Your task to perform on an android device: Open CNN.com Image 0: 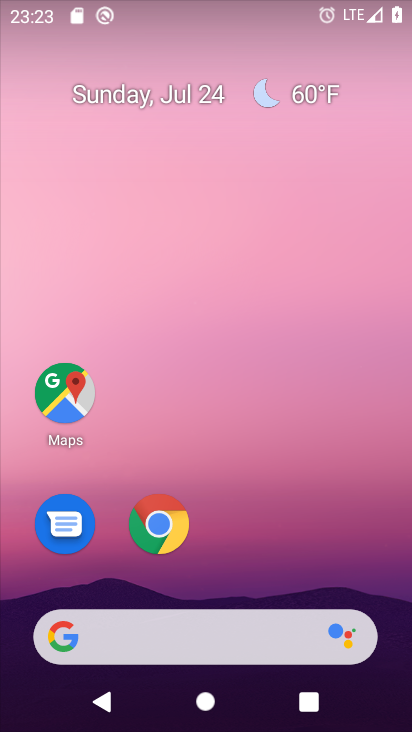
Step 0: click (207, 634)
Your task to perform on an android device: Open CNN.com Image 1: 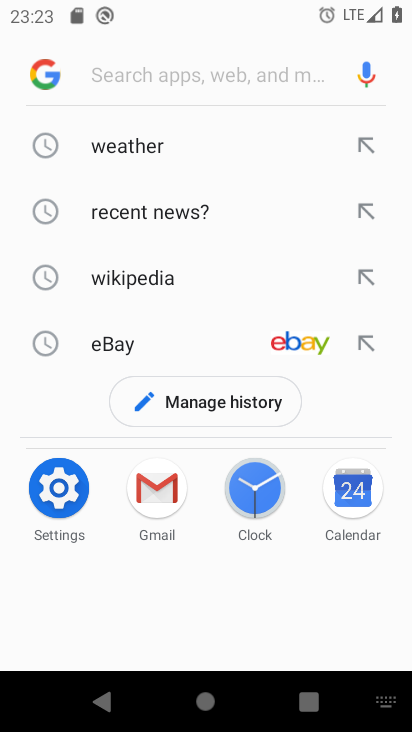
Step 1: type "cnn.com"
Your task to perform on an android device: Open CNN.com Image 2: 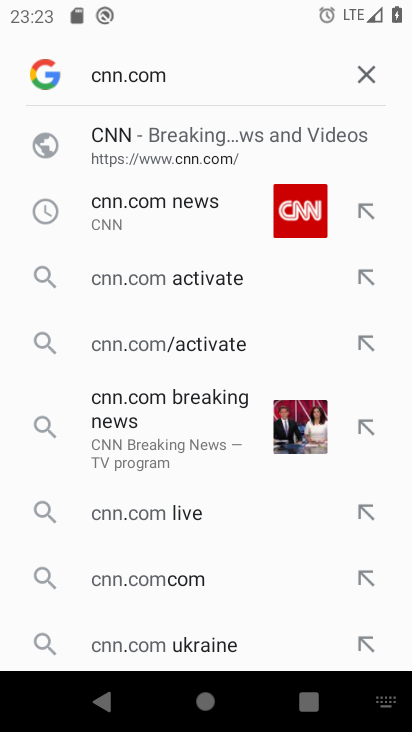
Step 2: click (186, 205)
Your task to perform on an android device: Open CNN.com Image 3: 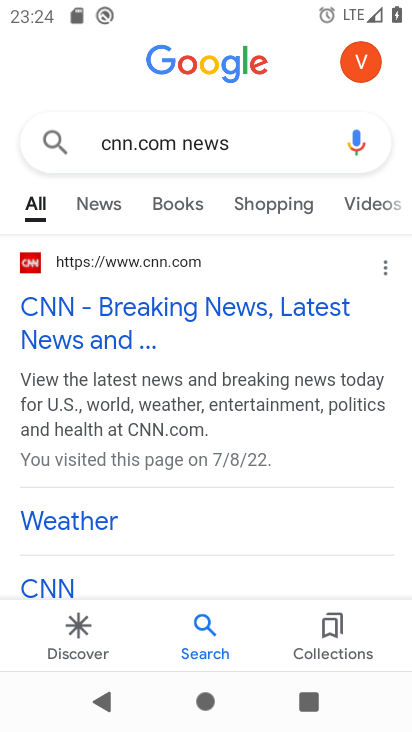
Step 3: click (137, 301)
Your task to perform on an android device: Open CNN.com Image 4: 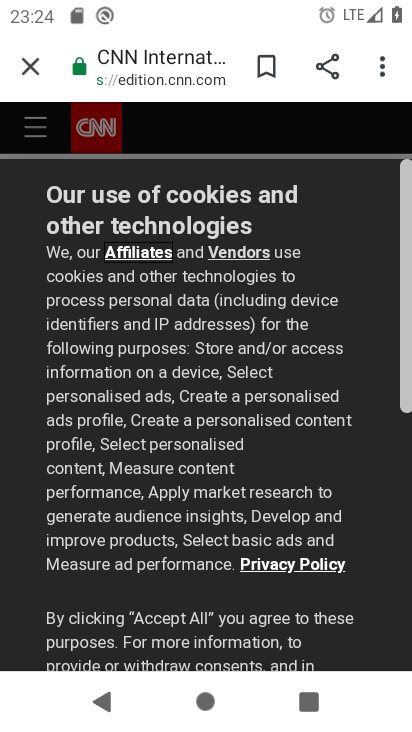
Step 4: drag from (235, 467) to (288, 71)
Your task to perform on an android device: Open CNN.com Image 5: 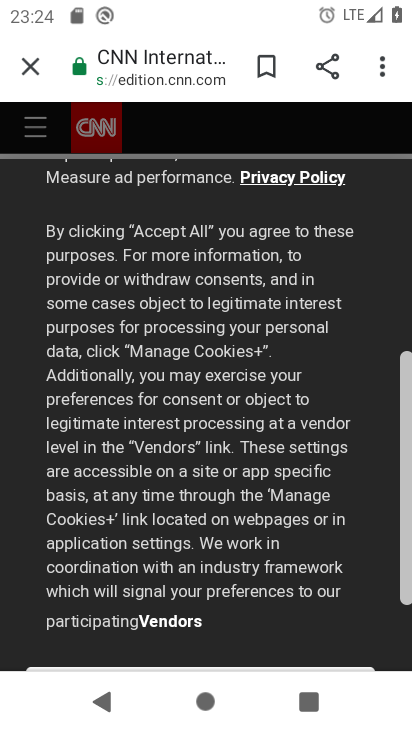
Step 5: drag from (244, 549) to (279, 193)
Your task to perform on an android device: Open CNN.com Image 6: 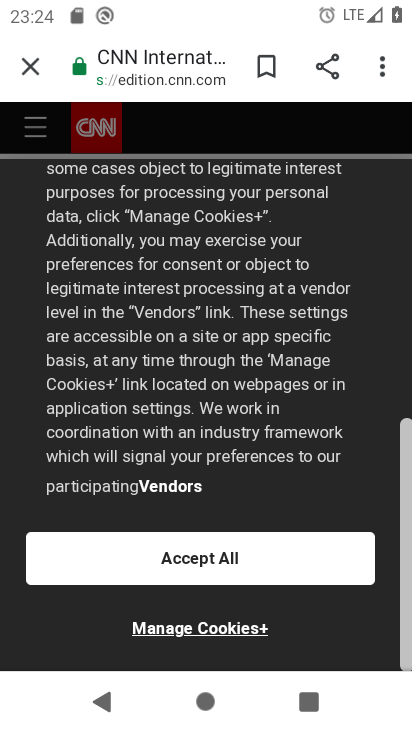
Step 6: click (243, 549)
Your task to perform on an android device: Open CNN.com Image 7: 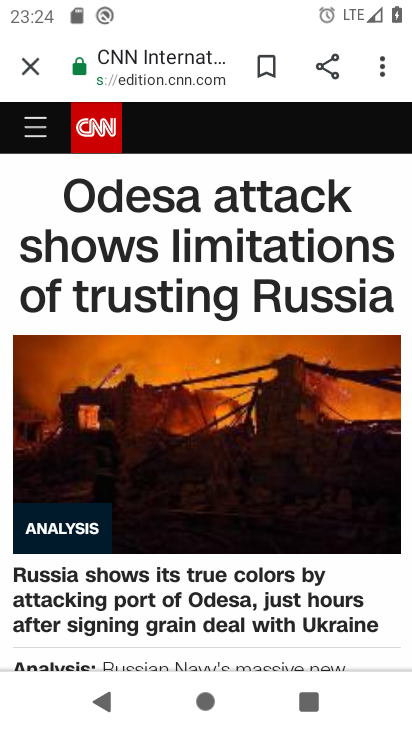
Step 7: drag from (174, 578) to (193, 224)
Your task to perform on an android device: Open CNN.com Image 8: 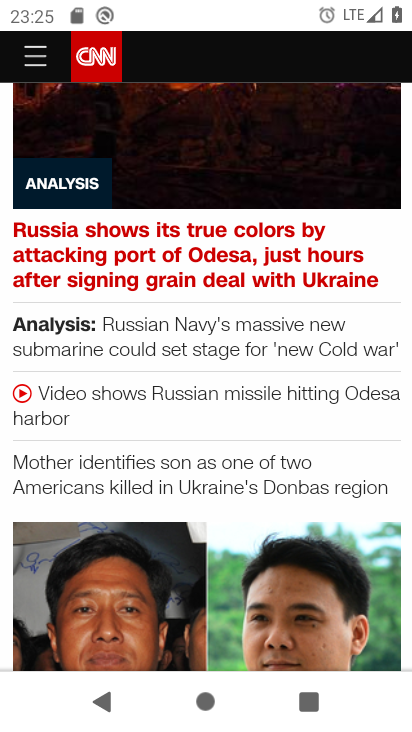
Step 8: drag from (223, 418) to (213, 108)
Your task to perform on an android device: Open CNN.com Image 9: 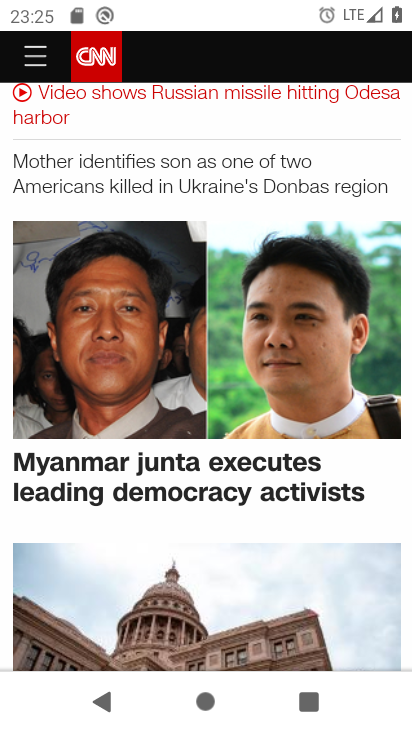
Step 9: drag from (252, 590) to (262, 179)
Your task to perform on an android device: Open CNN.com Image 10: 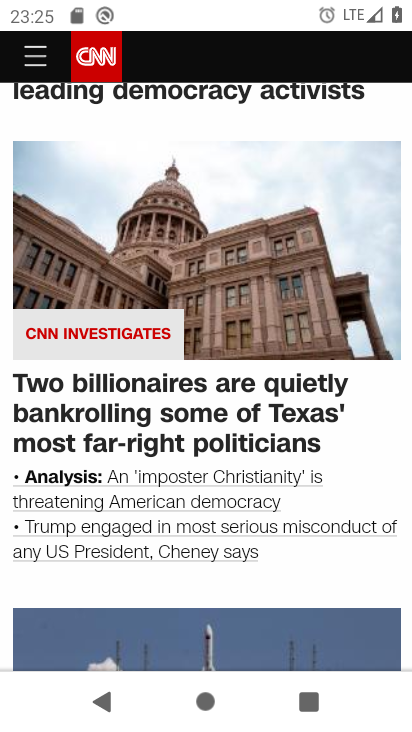
Step 10: drag from (257, 304) to (250, 86)
Your task to perform on an android device: Open CNN.com Image 11: 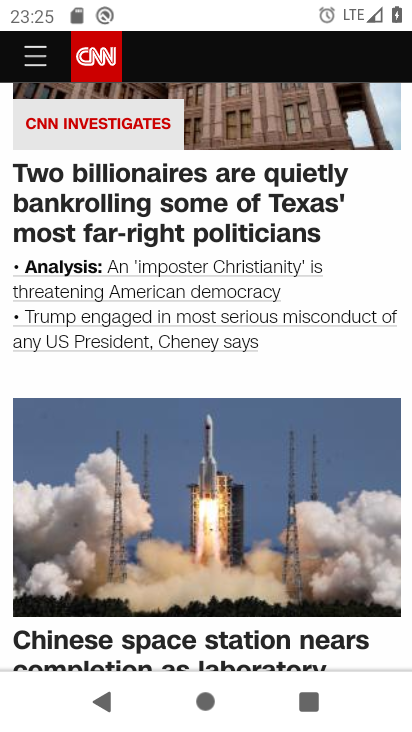
Step 11: drag from (275, 556) to (266, 172)
Your task to perform on an android device: Open CNN.com Image 12: 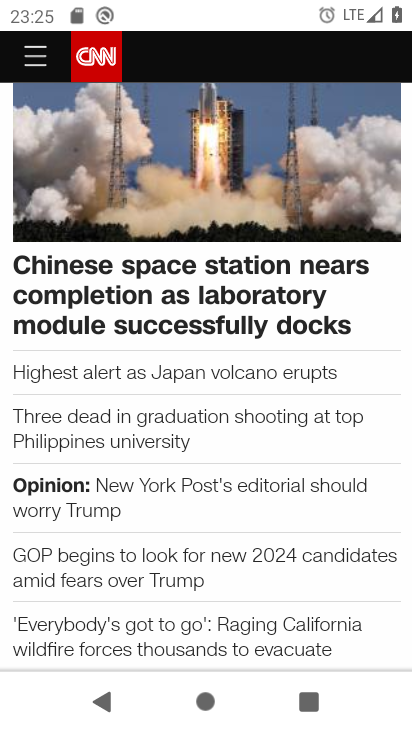
Step 12: drag from (261, 504) to (243, 205)
Your task to perform on an android device: Open CNN.com Image 13: 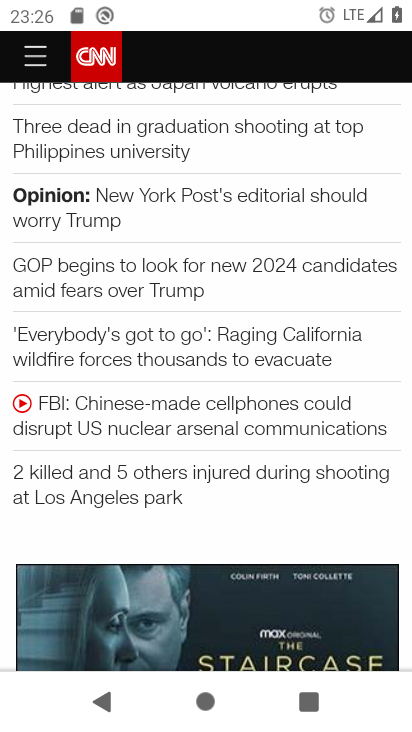
Step 13: drag from (213, 193) to (226, 382)
Your task to perform on an android device: Open CNN.com Image 14: 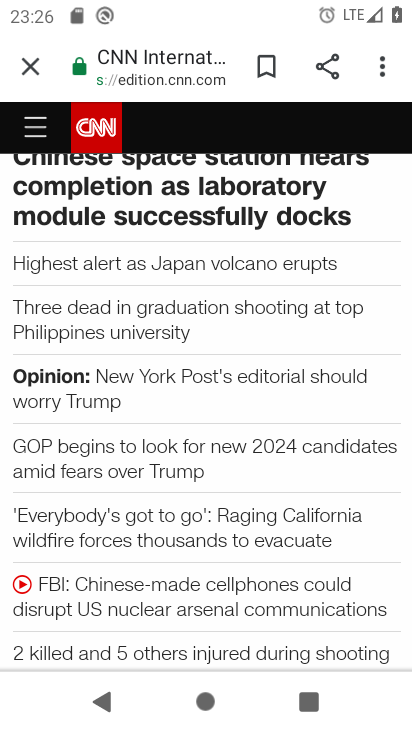
Step 14: drag from (208, 510) to (227, 317)
Your task to perform on an android device: Open CNN.com Image 15: 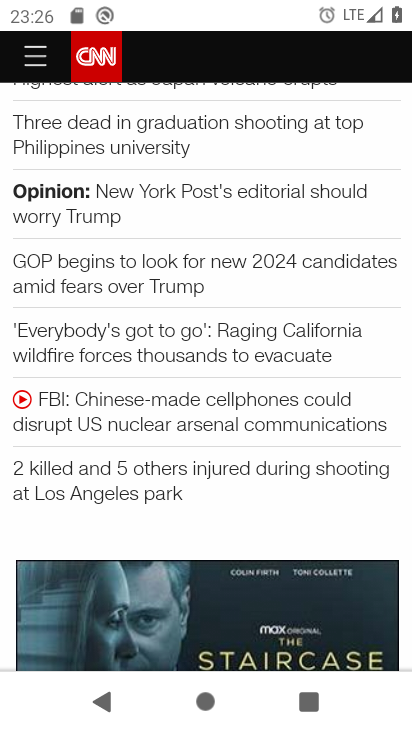
Step 15: drag from (224, 292) to (222, 516)
Your task to perform on an android device: Open CNN.com Image 16: 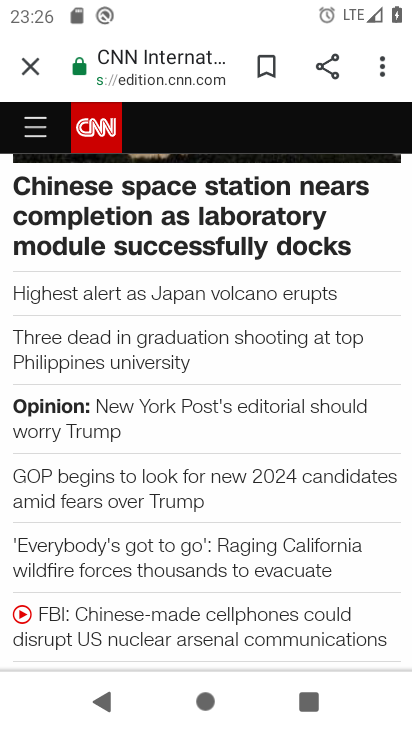
Step 16: click (214, 336)
Your task to perform on an android device: Open CNN.com Image 17: 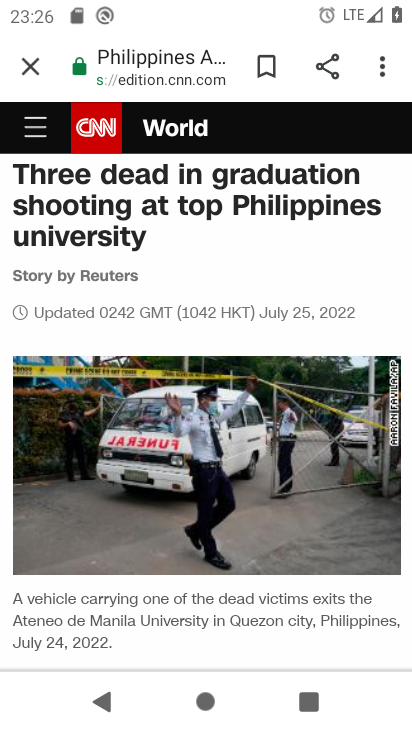
Step 17: task complete